Your task to perform on an android device: Go to Android settings Image 0: 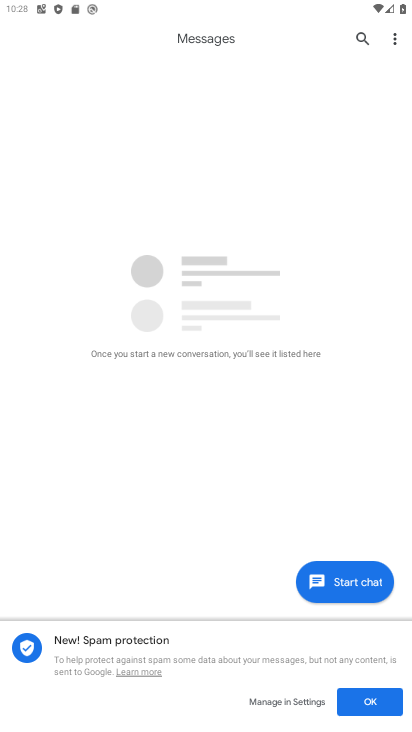
Step 0: press home button
Your task to perform on an android device: Go to Android settings Image 1: 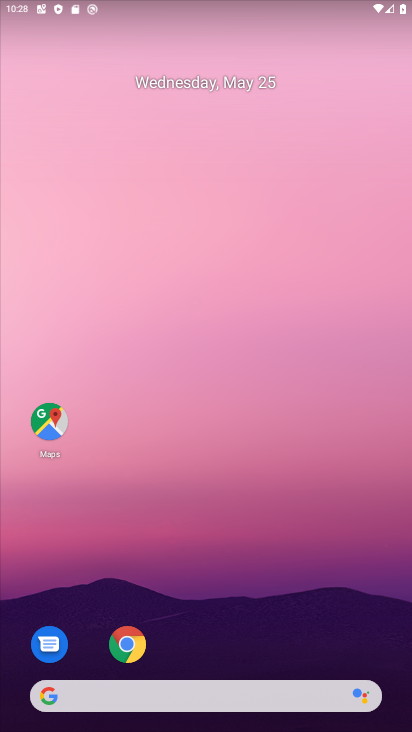
Step 1: drag from (231, 557) to (198, 103)
Your task to perform on an android device: Go to Android settings Image 2: 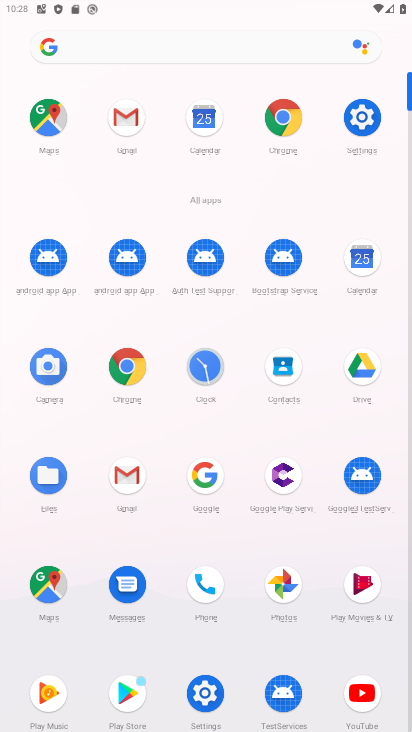
Step 2: click (370, 114)
Your task to perform on an android device: Go to Android settings Image 3: 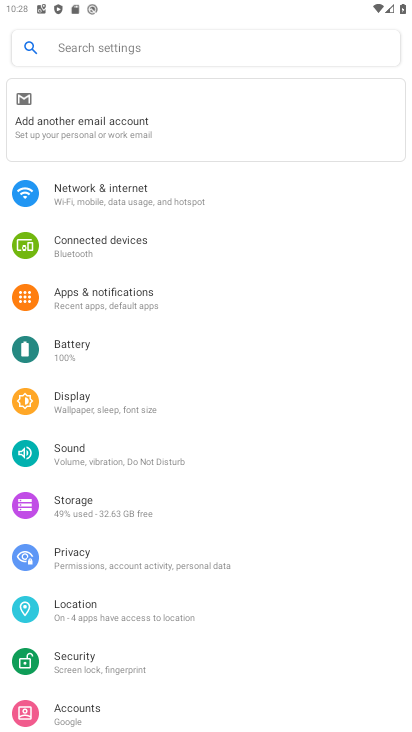
Step 3: task complete